Your task to perform on an android device: Open calendar and show me the second week of next month Image 0: 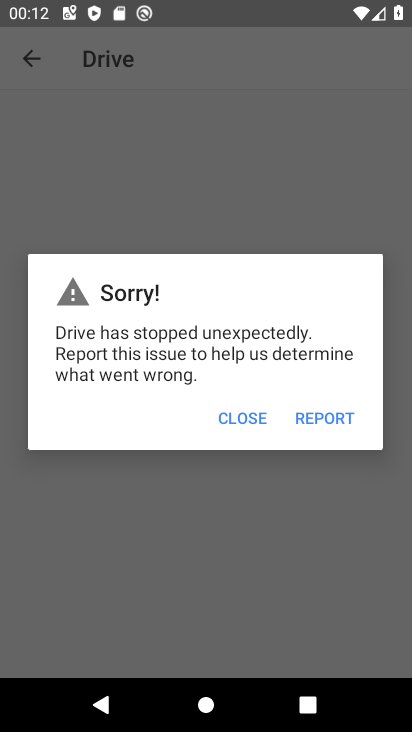
Step 0: press home button
Your task to perform on an android device: Open calendar and show me the second week of next month Image 1: 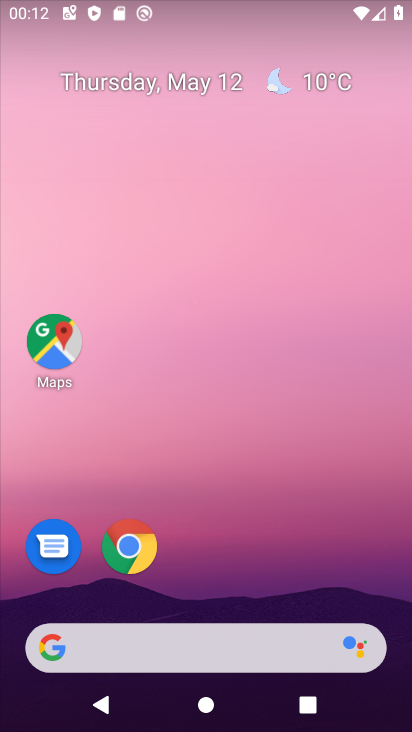
Step 1: drag from (141, 595) to (312, 225)
Your task to perform on an android device: Open calendar and show me the second week of next month Image 2: 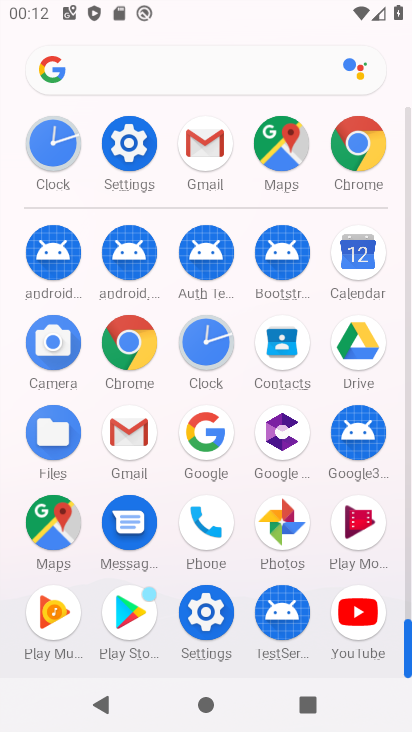
Step 2: click (352, 263)
Your task to perform on an android device: Open calendar and show me the second week of next month Image 3: 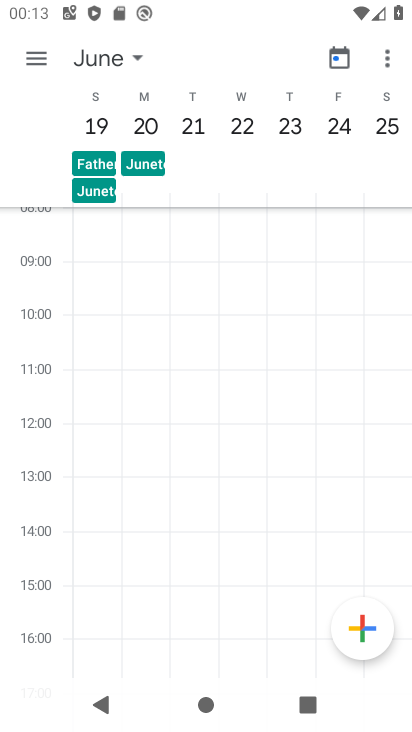
Step 3: click (134, 64)
Your task to perform on an android device: Open calendar and show me the second week of next month Image 4: 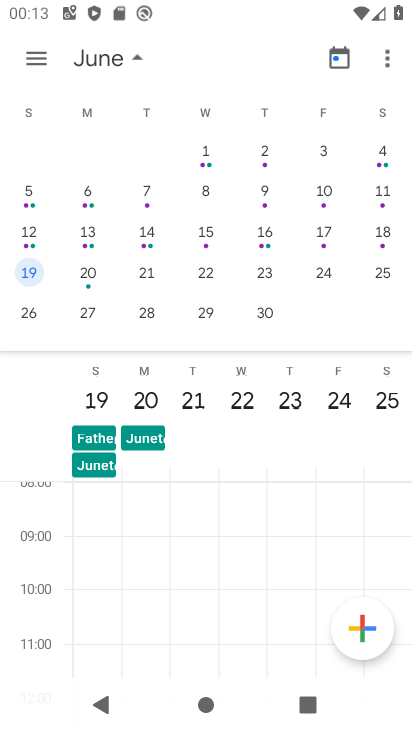
Step 4: click (208, 192)
Your task to perform on an android device: Open calendar and show me the second week of next month Image 5: 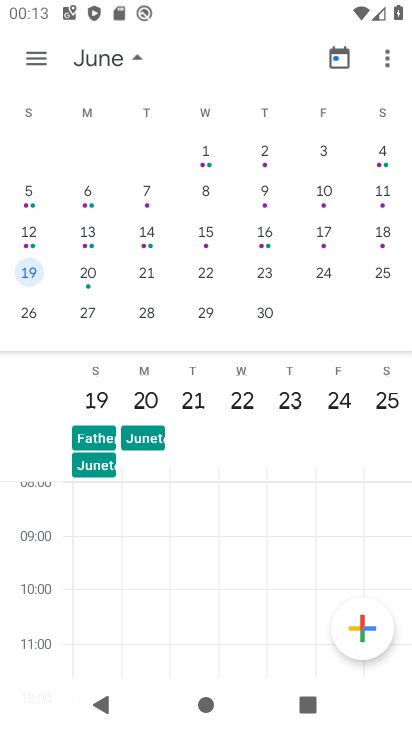
Step 5: click (30, 56)
Your task to perform on an android device: Open calendar and show me the second week of next month Image 6: 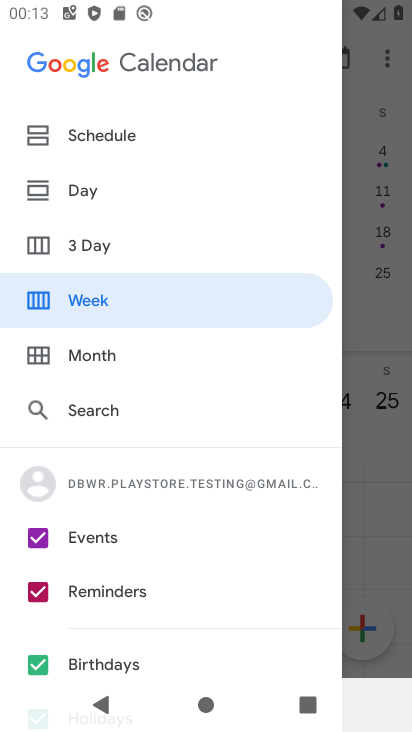
Step 6: click (109, 309)
Your task to perform on an android device: Open calendar and show me the second week of next month Image 7: 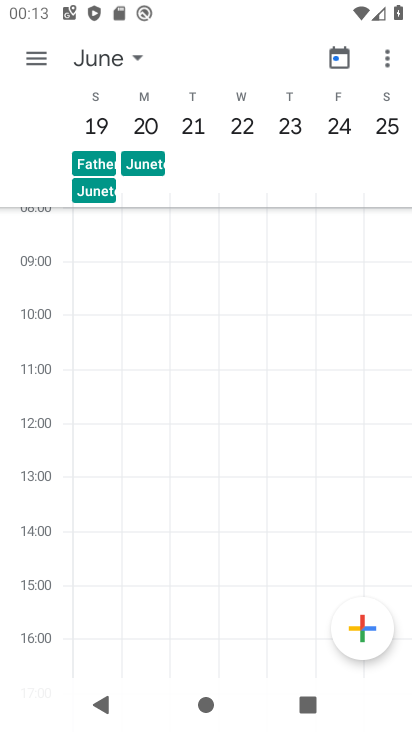
Step 7: task complete